Your task to perform on an android device: Open ESPN.com Image 0: 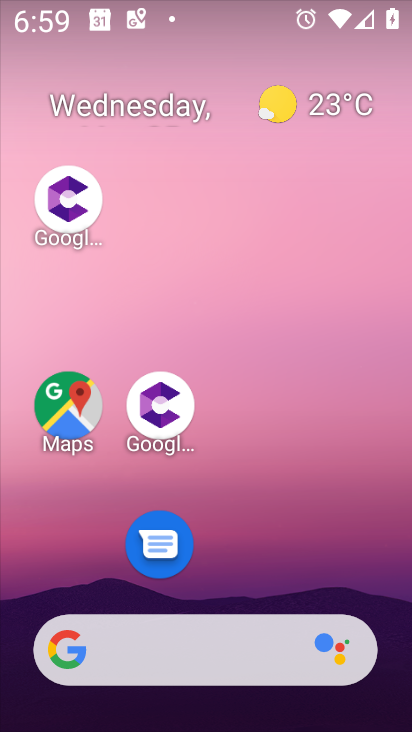
Step 0: drag from (294, 559) to (156, 113)
Your task to perform on an android device: Open ESPN.com Image 1: 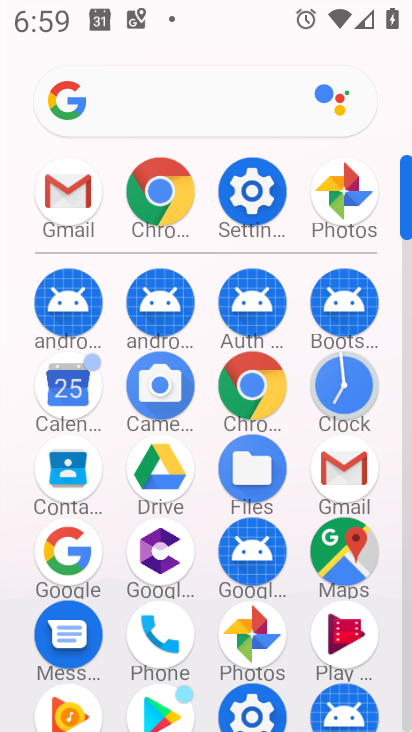
Step 1: click (256, 388)
Your task to perform on an android device: Open ESPN.com Image 2: 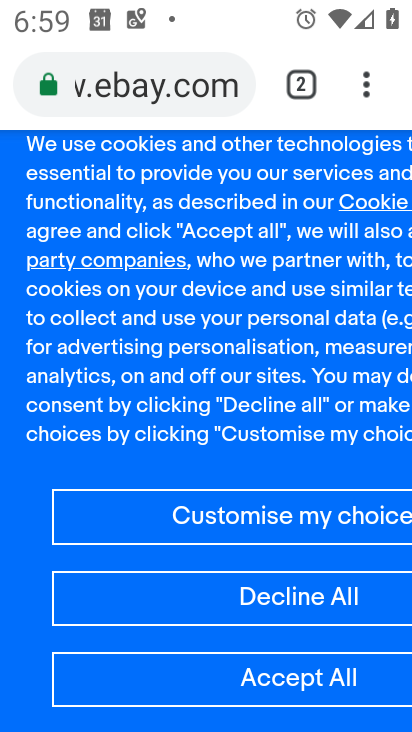
Step 2: click (368, 87)
Your task to perform on an android device: Open ESPN.com Image 3: 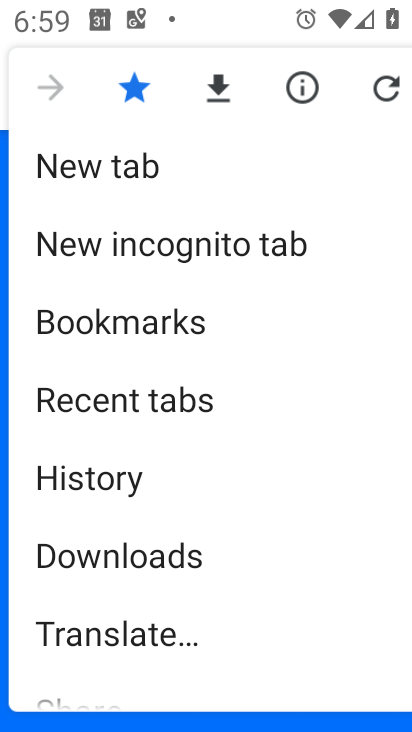
Step 3: click (112, 161)
Your task to perform on an android device: Open ESPN.com Image 4: 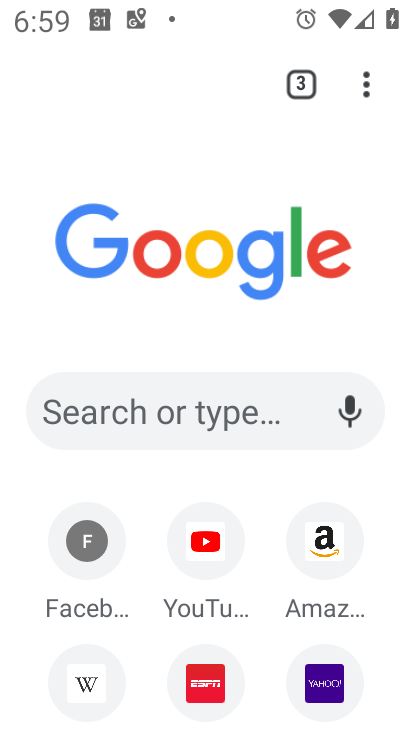
Step 4: click (203, 679)
Your task to perform on an android device: Open ESPN.com Image 5: 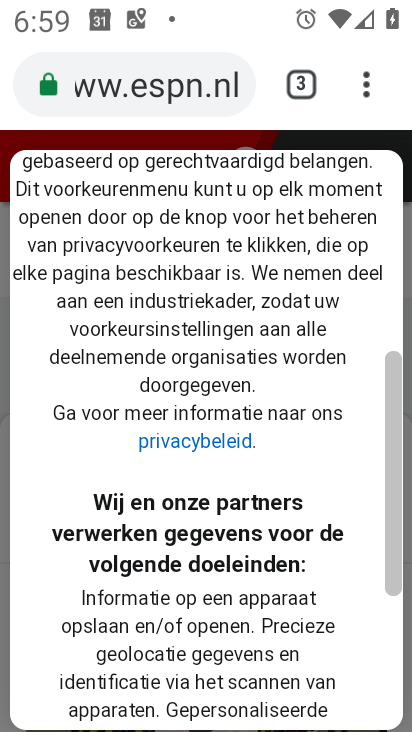
Step 5: task complete